Your task to perform on an android device: change text size in settings app Image 0: 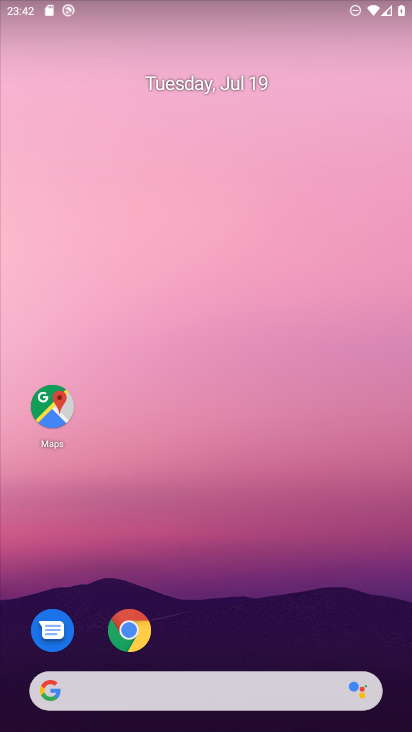
Step 0: drag from (193, 636) to (186, 181)
Your task to perform on an android device: change text size in settings app Image 1: 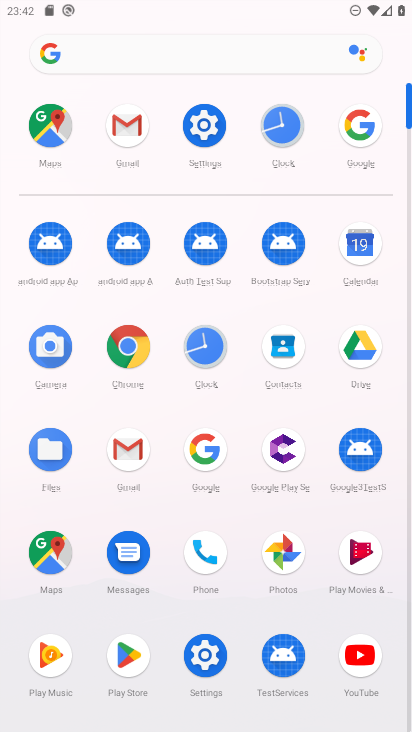
Step 1: click (223, 141)
Your task to perform on an android device: change text size in settings app Image 2: 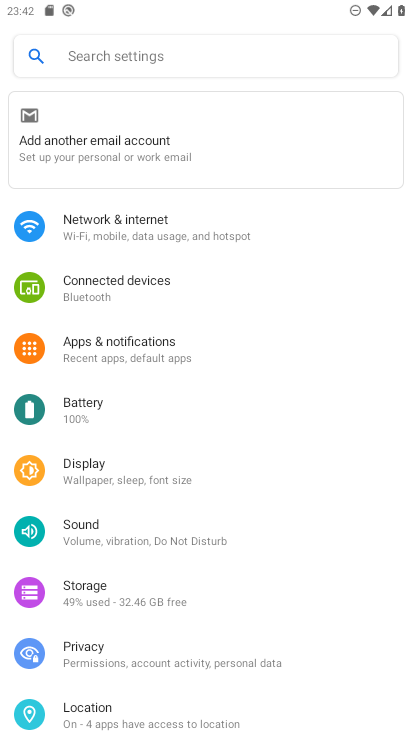
Step 2: click (104, 467)
Your task to perform on an android device: change text size in settings app Image 3: 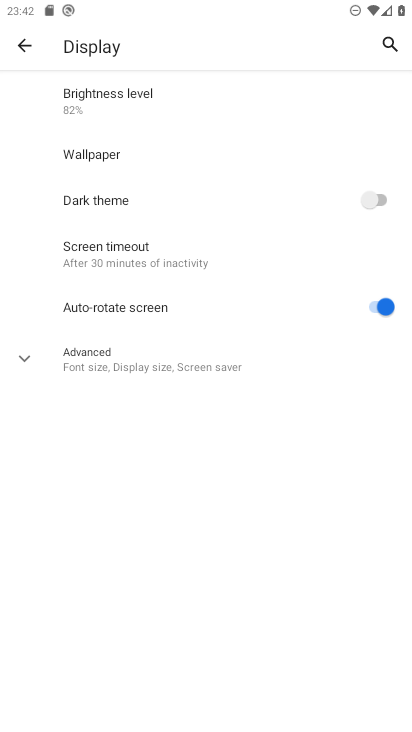
Step 3: click (115, 372)
Your task to perform on an android device: change text size in settings app Image 4: 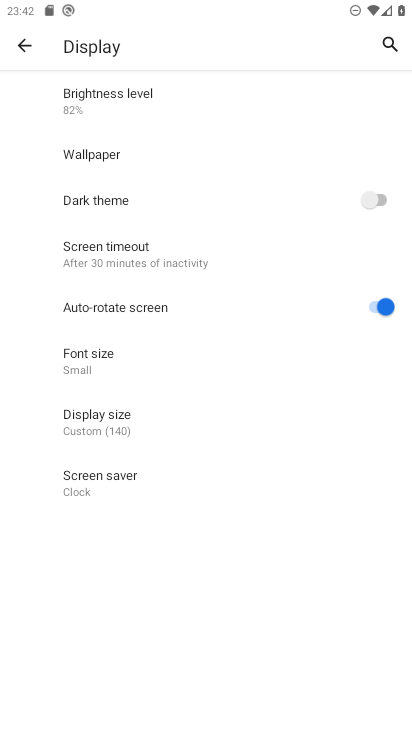
Step 4: click (115, 372)
Your task to perform on an android device: change text size in settings app Image 5: 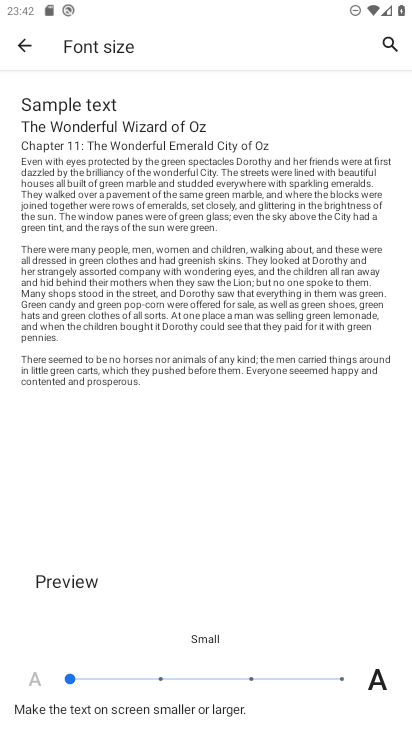
Step 5: click (342, 674)
Your task to perform on an android device: change text size in settings app Image 6: 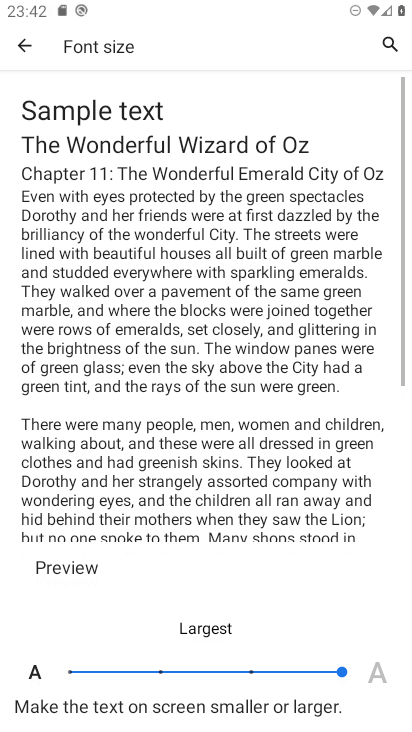
Step 6: task complete